Your task to perform on an android device: allow cookies in the chrome app Image 0: 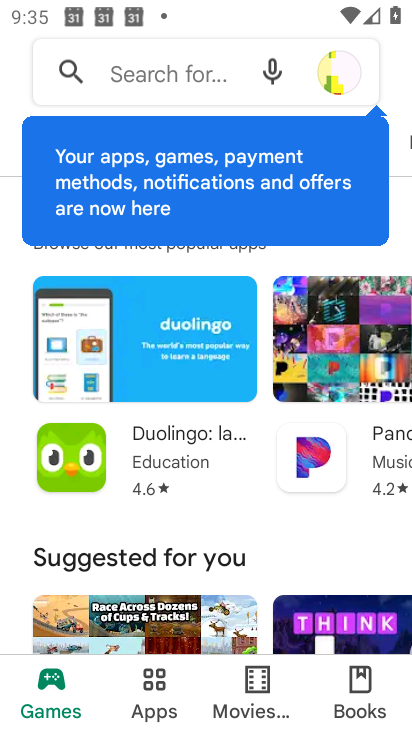
Step 0: press home button
Your task to perform on an android device: allow cookies in the chrome app Image 1: 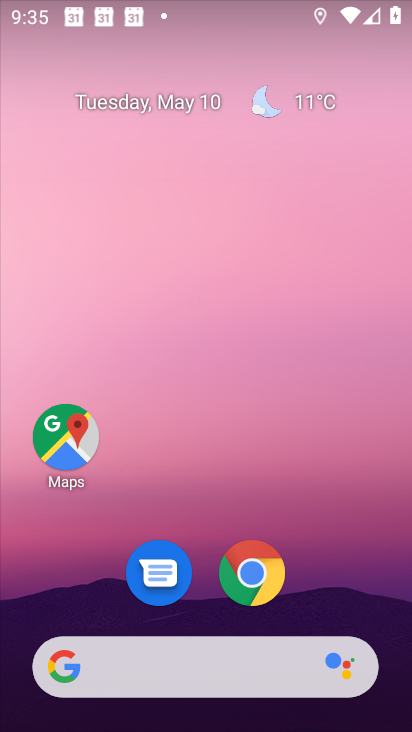
Step 1: click (269, 583)
Your task to perform on an android device: allow cookies in the chrome app Image 2: 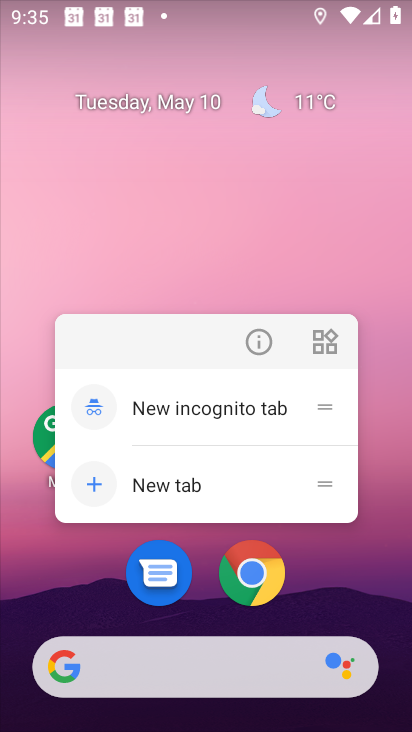
Step 2: click (272, 588)
Your task to perform on an android device: allow cookies in the chrome app Image 3: 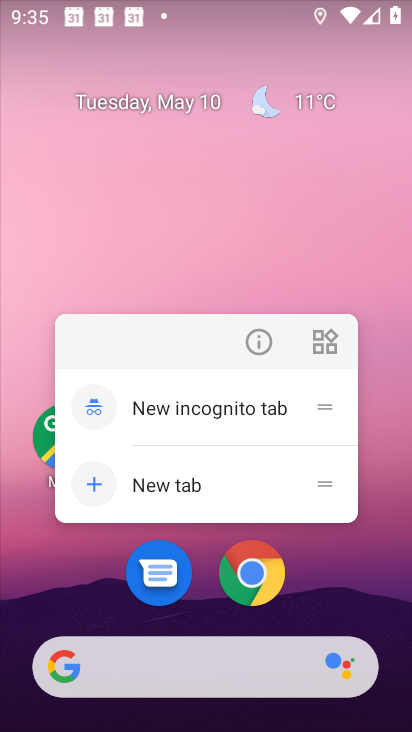
Step 3: click (263, 589)
Your task to perform on an android device: allow cookies in the chrome app Image 4: 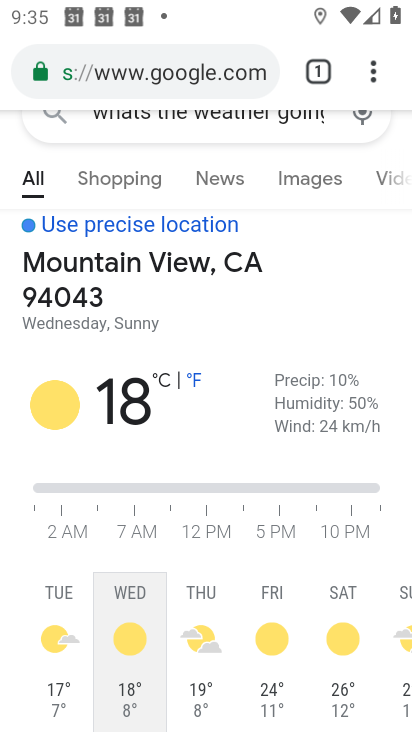
Step 4: drag from (374, 68) to (177, 574)
Your task to perform on an android device: allow cookies in the chrome app Image 5: 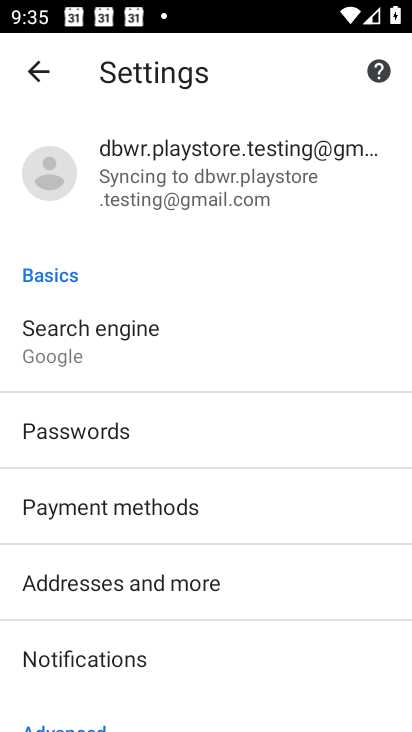
Step 5: drag from (203, 652) to (217, 305)
Your task to perform on an android device: allow cookies in the chrome app Image 6: 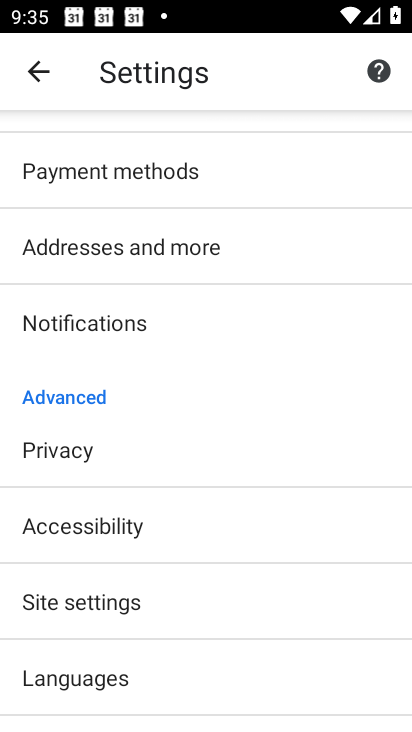
Step 6: click (121, 607)
Your task to perform on an android device: allow cookies in the chrome app Image 7: 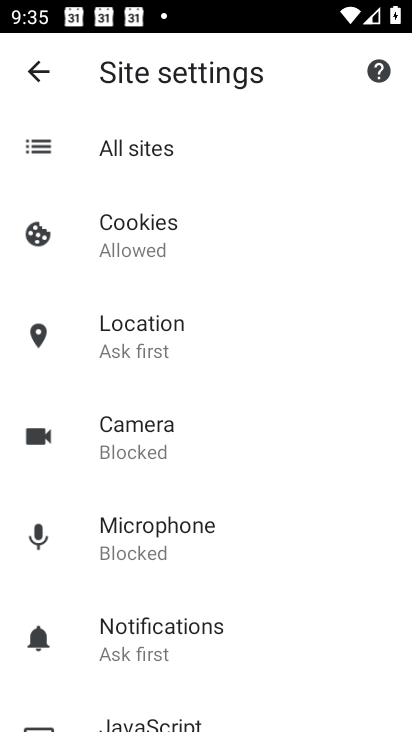
Step 7: click (199, 233)
Your task to perform on an android device: allow cookies in the chrome app Image 8: 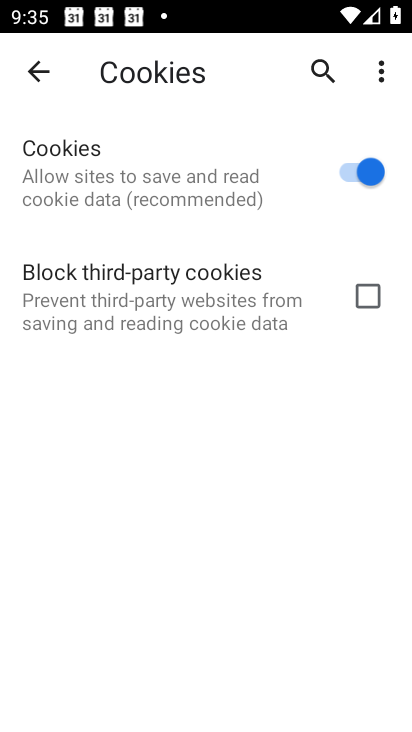
Step 8: task complete